Your task to perform on an android device: change the clock display to analog Image 0: 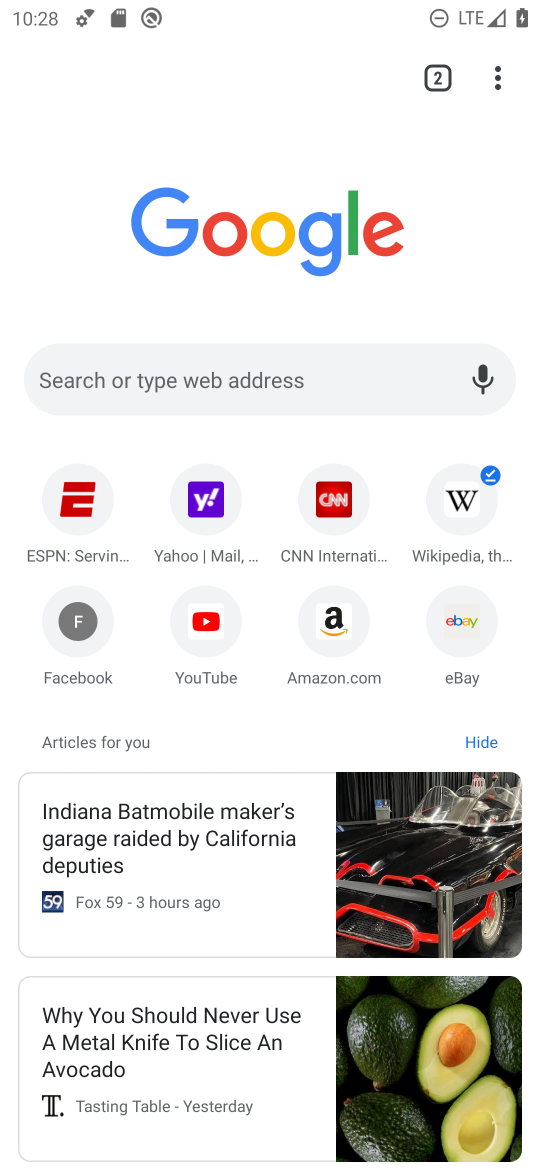
Step 0: press home button
Your task to perform on an android device: change the clock display to analog Image 1: 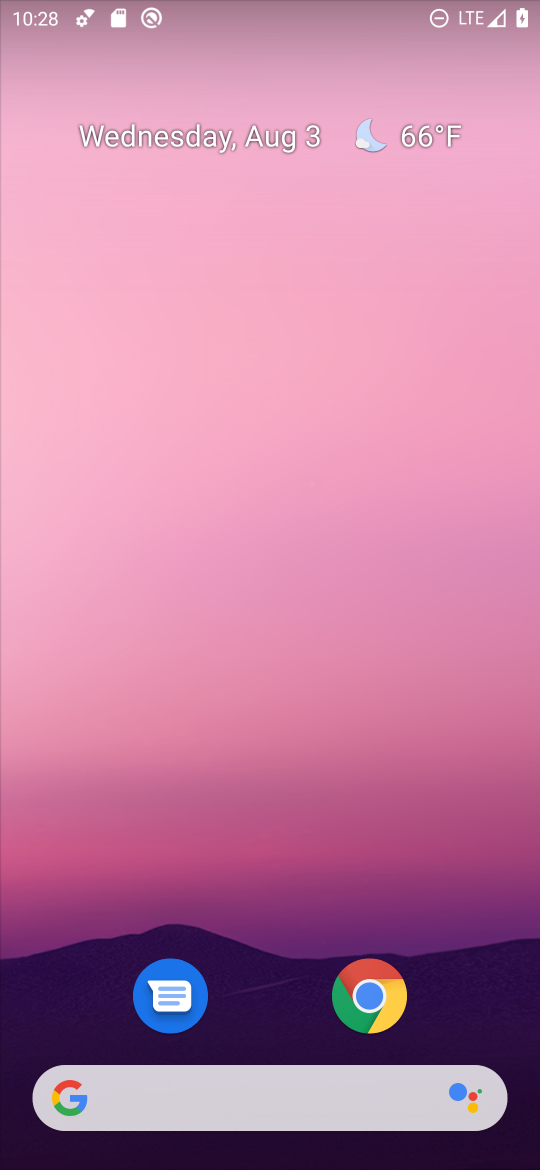
Step 1: drag from (272, 878) to (218, 54)
Your task to perform on an android device: change the clock display to analog Image 2: 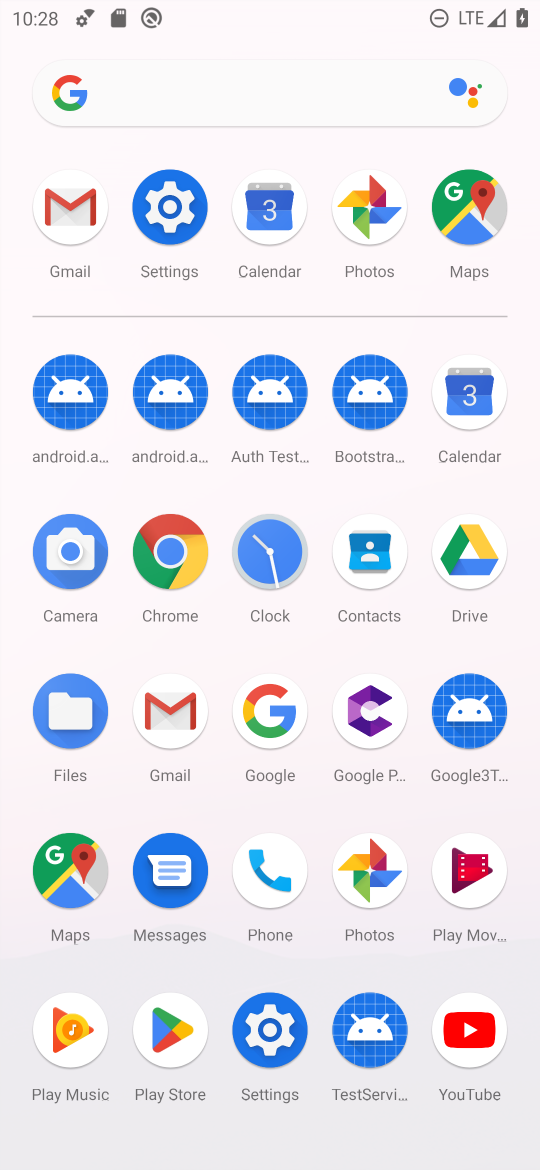
Step 2: click (280, 558)
Your task to perform on an android device: change the clock display to analog Image 3: 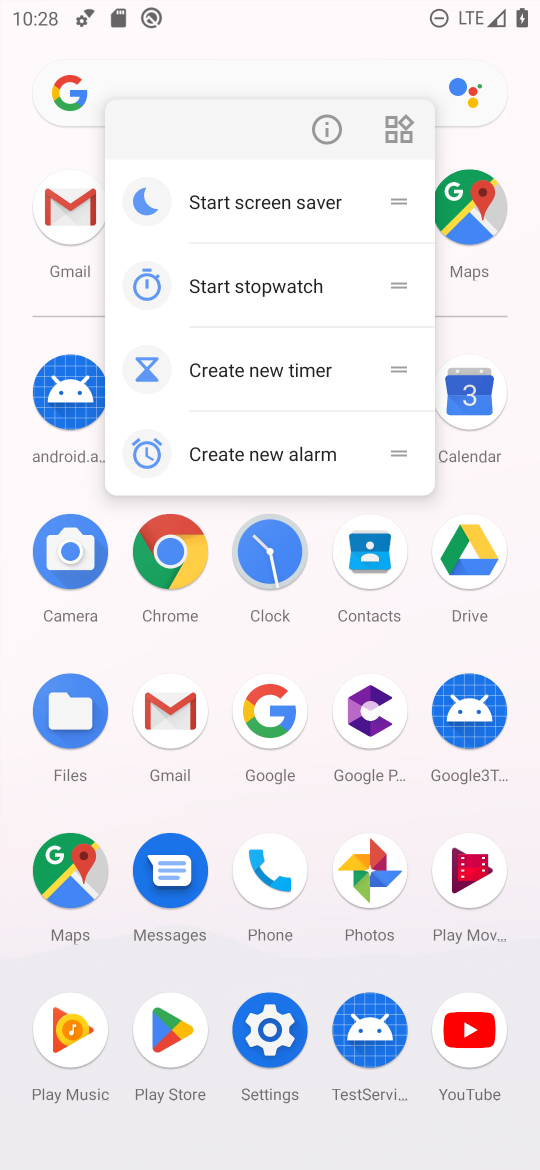
Step 3: click (280, 558)
Your task to perform on an android device: change the clock display to analog Image 4: 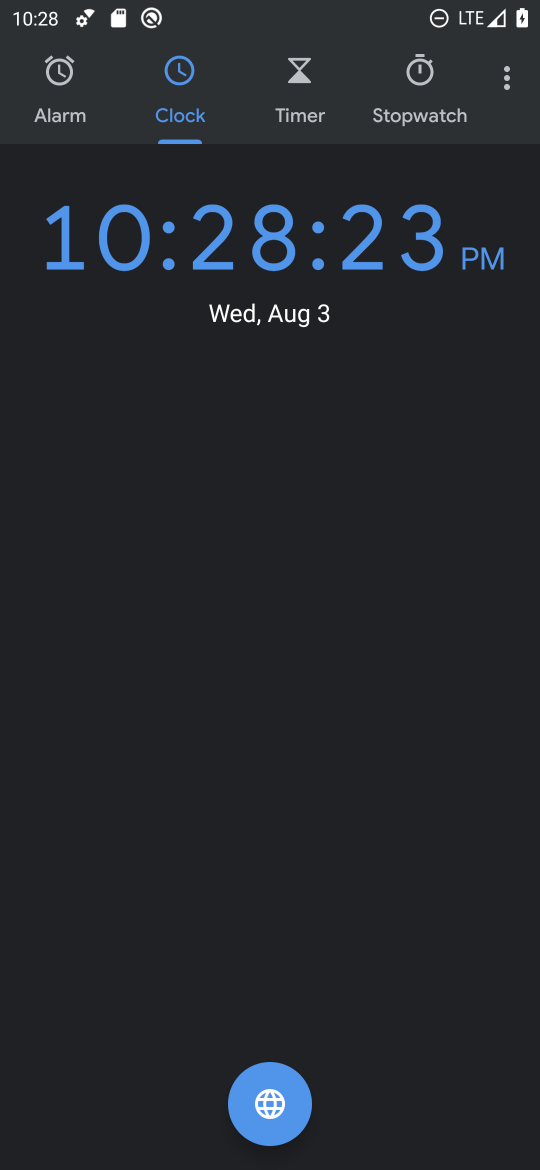
Step 4: click (510, 88)
Your task to perform on an android device: change the clock display to analog Image 5: 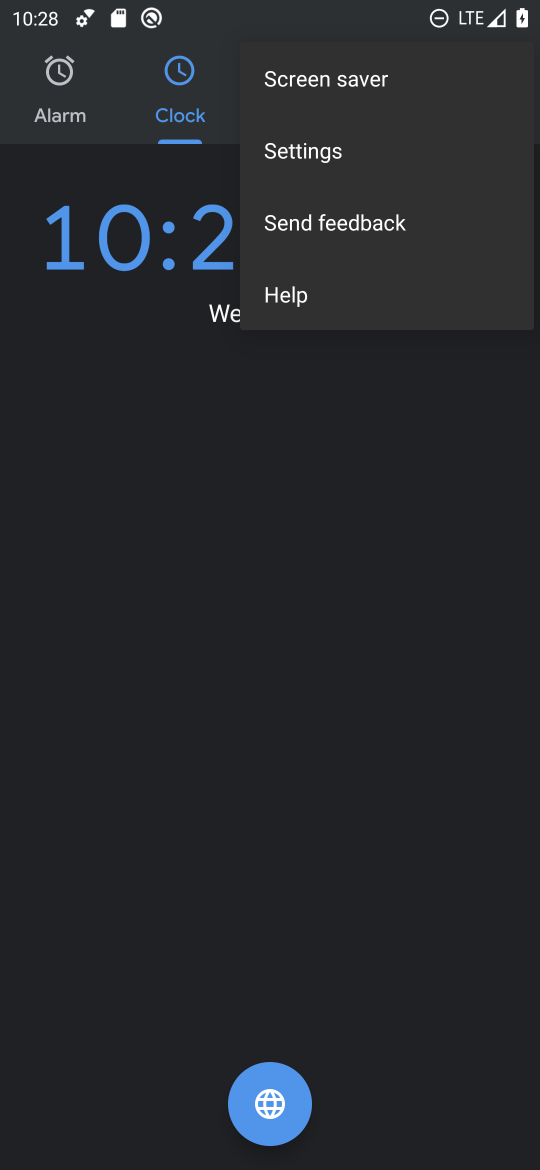
Step 5: click (381, 150)
Your task to perform on an android device: change the clock display to analog Image 6: 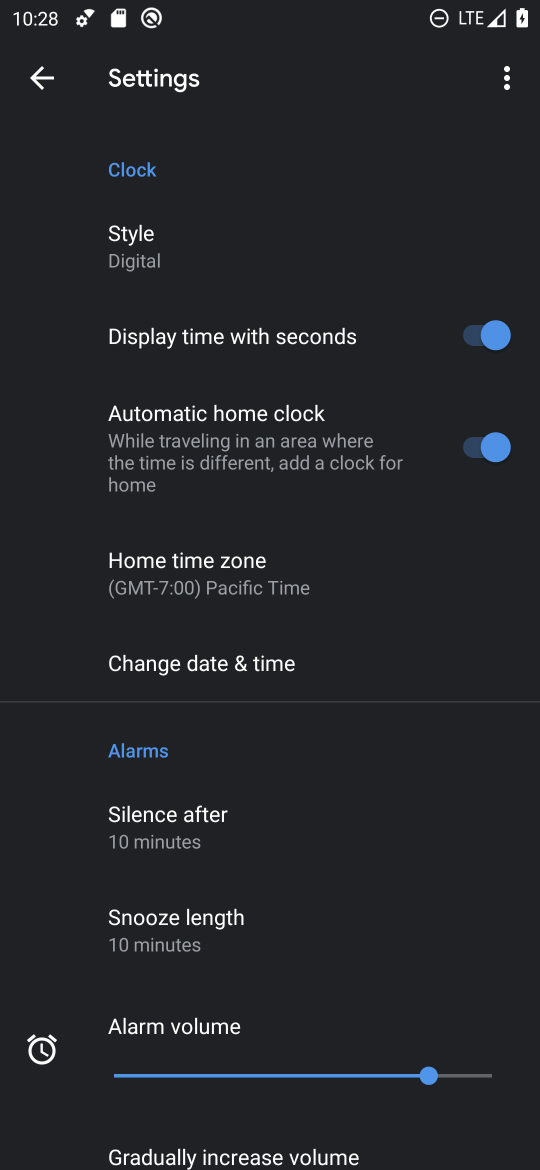
Step 6: click (149, 252)
Your task to perform on an android device: change the clock display to analog Image 7: 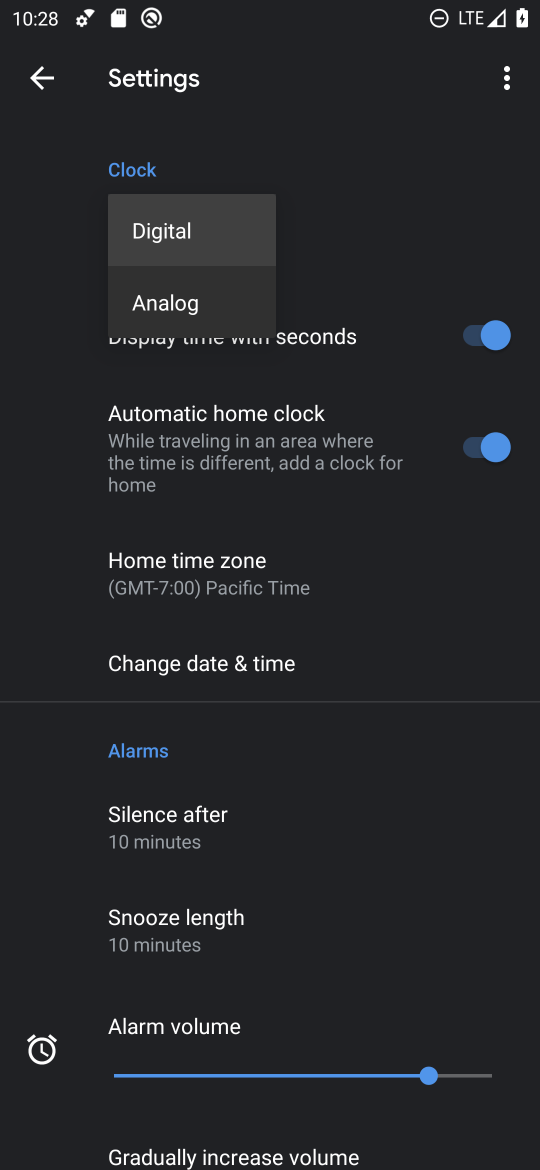
Step 7: click (173, 294)
Your task to perform on an android device: change the clock display to analog Image 8: 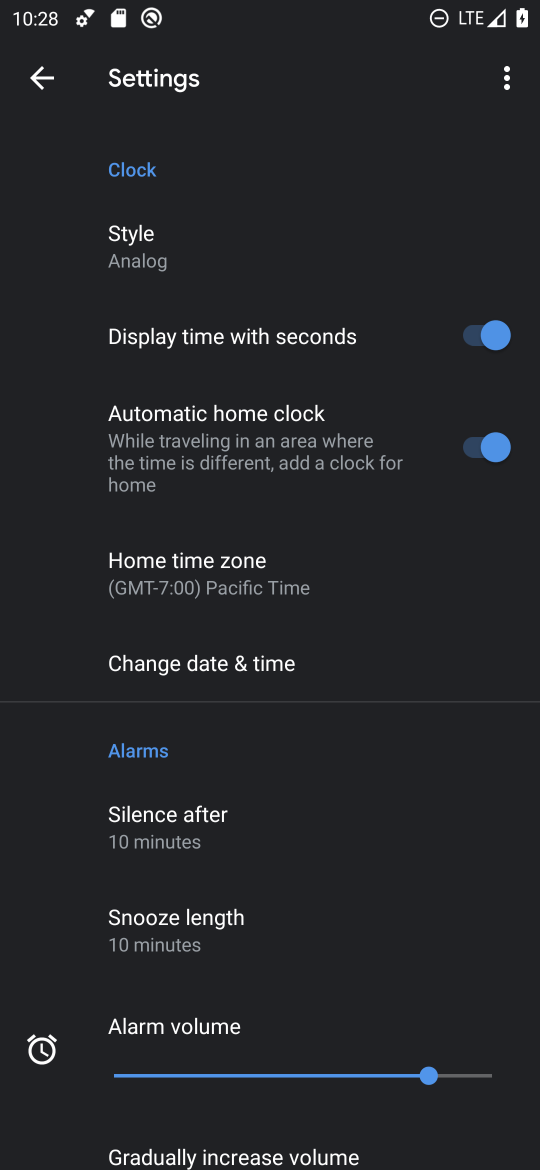
Step 8: click (43, 69)
Your task to perform on an android device: change the clock display to analog Image 9: 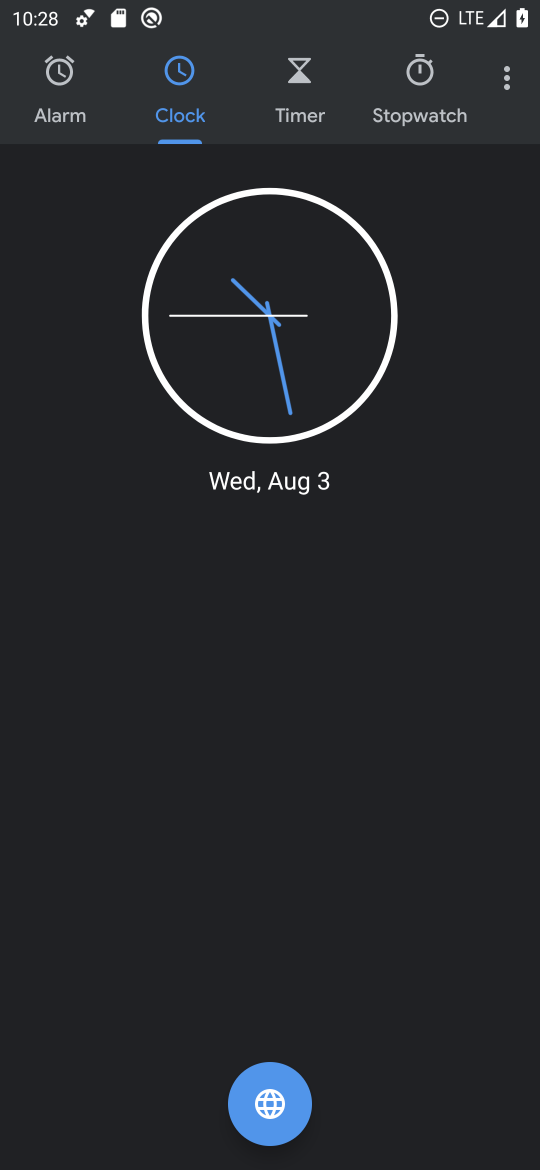
Step 9: task complete